Your task to perform on an android device: turn vacation reply on in the gmail app Image 0: 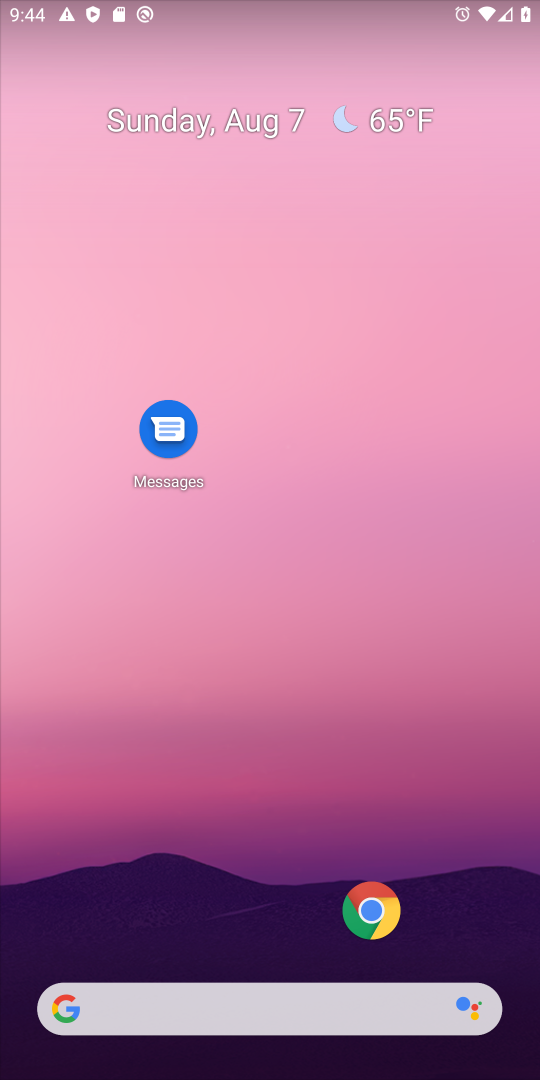
Step 0: drag from (270, 694) to (279, 540)
Your task to perform on an android device: turn vacation reply on in the gmail app Image 1: 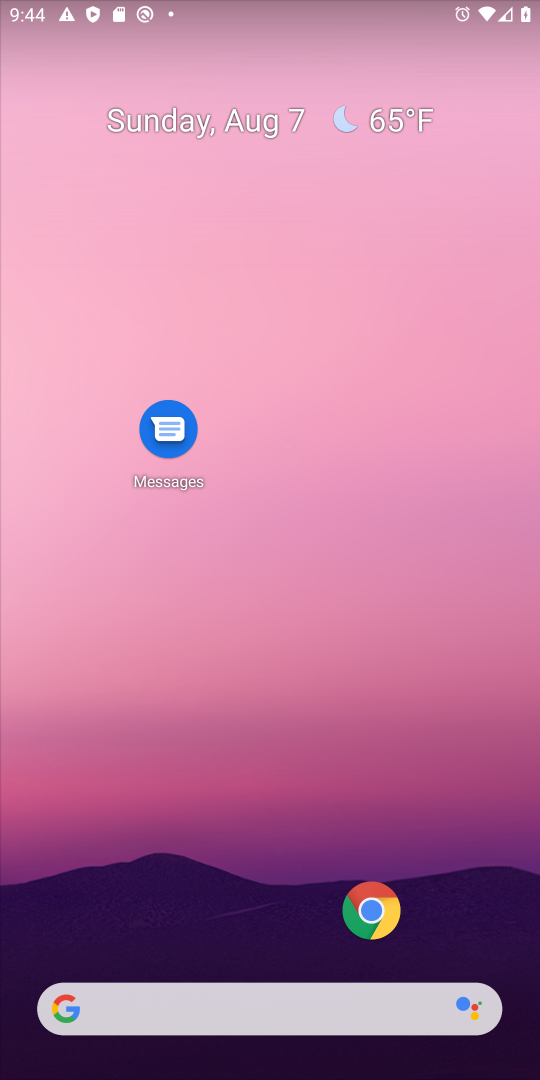
Step 1: drag from (256, 836) to (256, 428)
Your task to perform on an android device: turn vacation reply on in the gmail app Image 2: 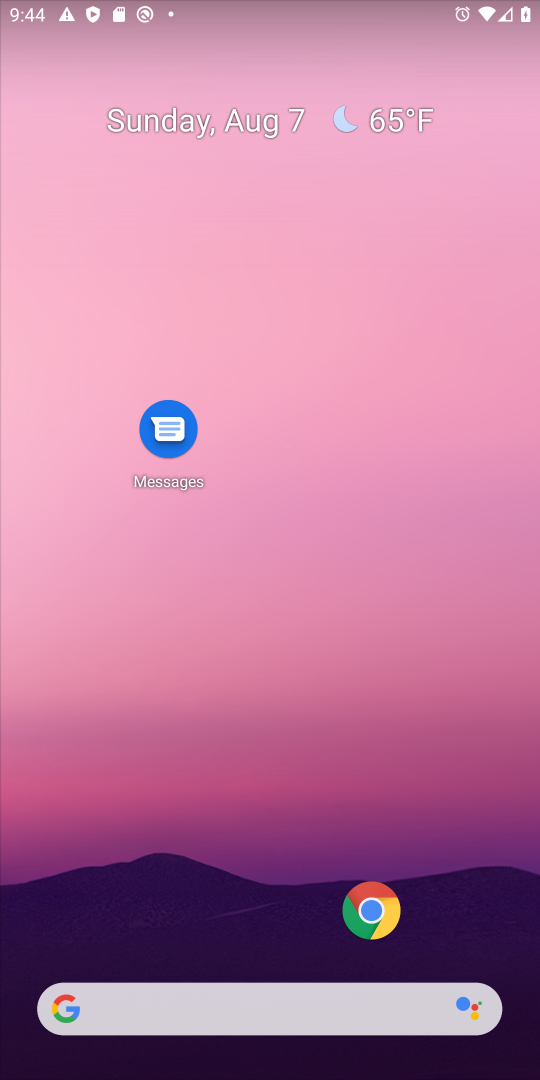
Step 2: drag from (218, 937) to (218, 433)
Your task to perform on an android device: turn vacation reply on in the gmail app Image 3: 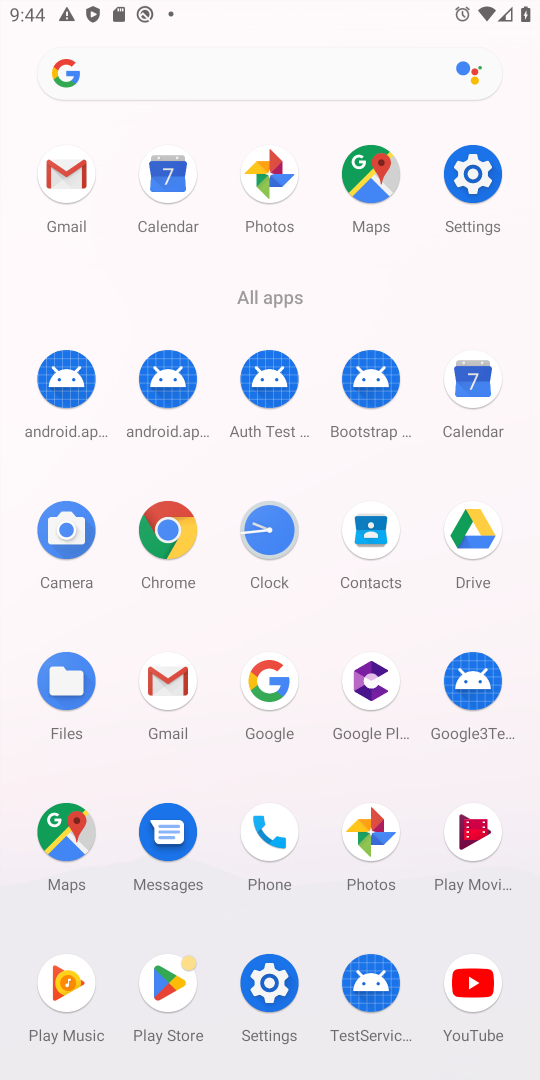
Step 3: click (163, 677)
Your task to perform on an android device: turn vacation reply on in the gmail app Image 4: 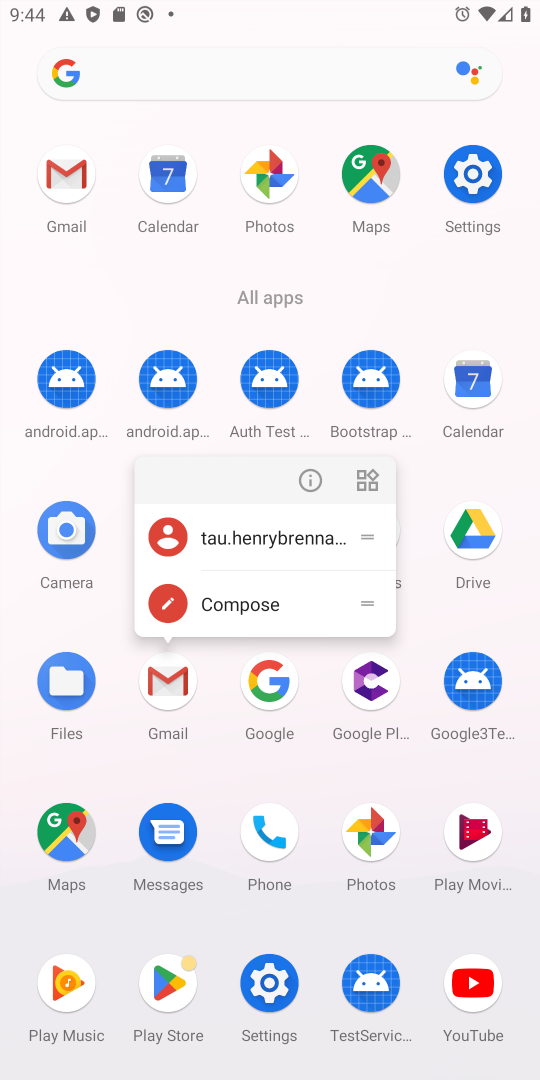
Step 4: click (163, 701)
Your task to perform on an android device: turn vacation reply on in the gmail app Image 5: 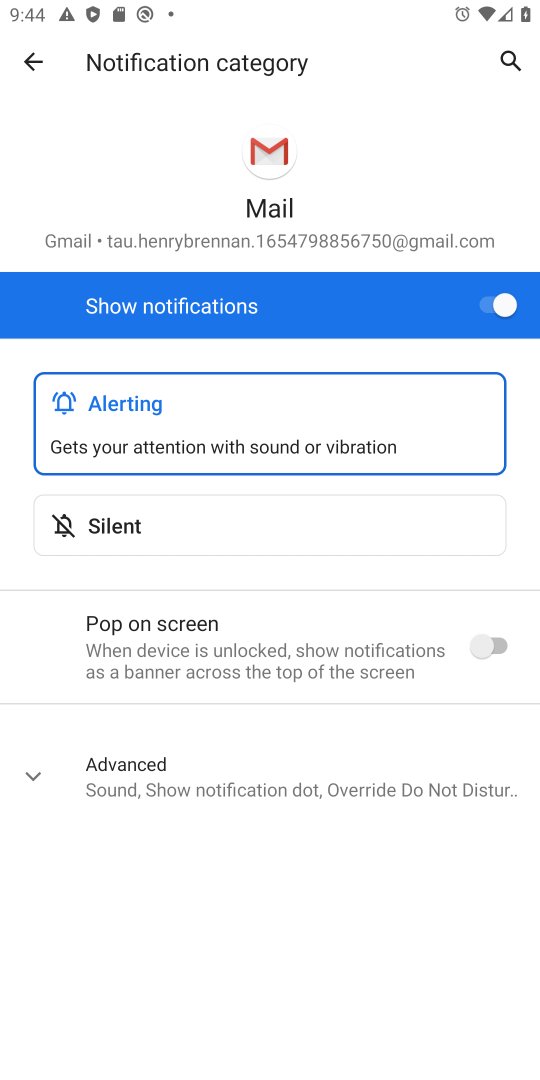
Step 5: drag from (14, 55) to (77, 55)
Your task to perform on an android device: turn vacation reply on in the gmail app Image 6: 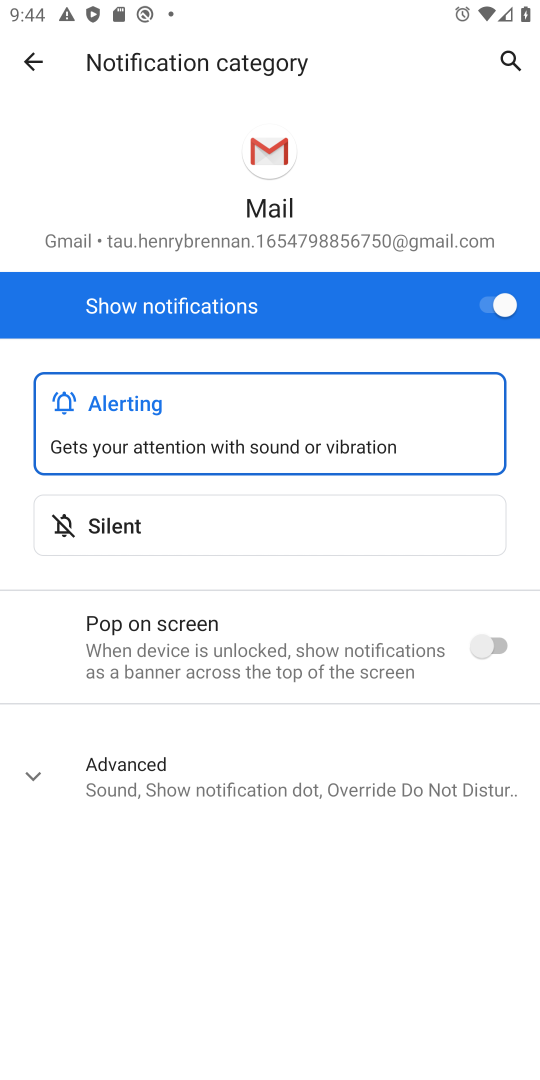
Step 6: click (38, 61)
Your task to perform on an android device: turn vacation reply on in the gmail app Image 7: 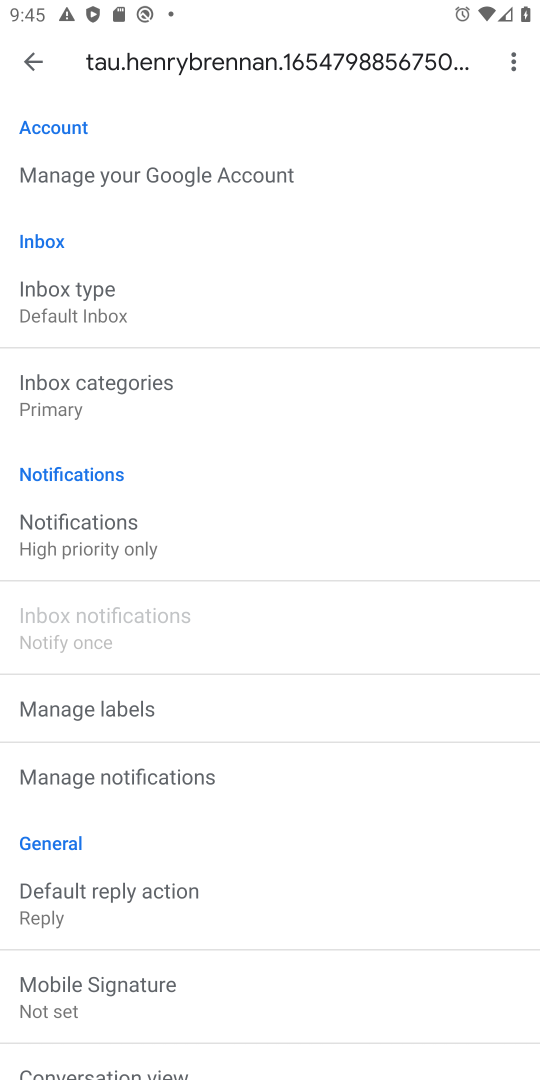
Step 7: drag from (75, 991) to (142, 541)
Your task to perform on an android device: turn vacation reply on in the gmail app Image 8: 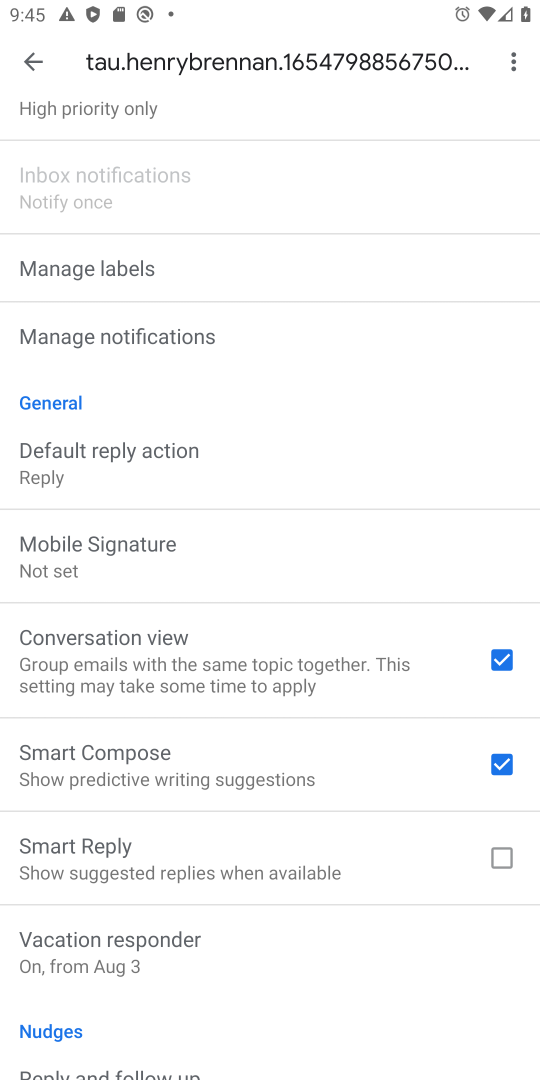
Step 8: click (98, 952)
Your task to perform on an android device: turn vacation reply on in the gmail app Image 9: 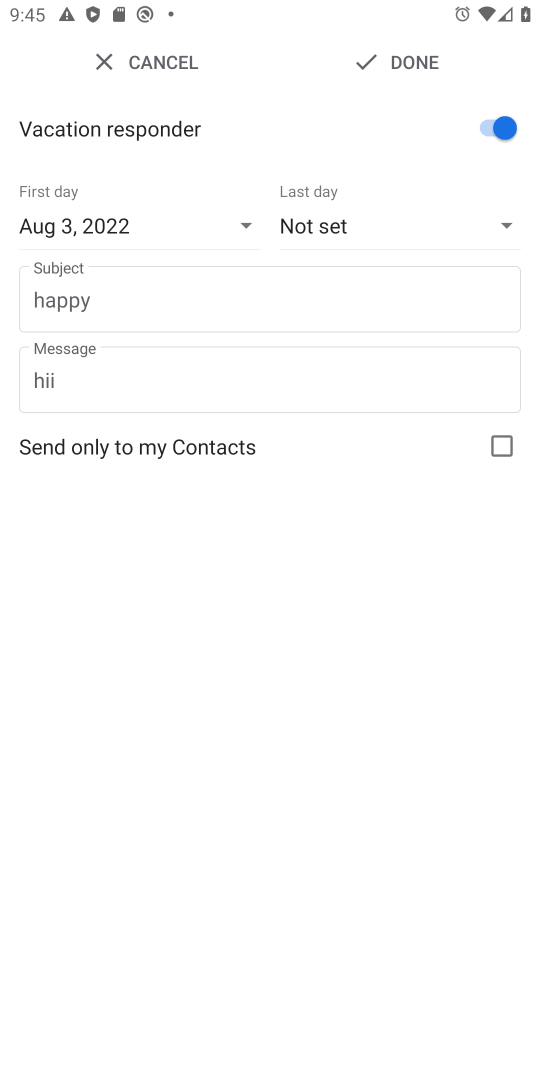
Step 9: click (377, 59)
Your task to perform on an android device: turn vacation reply on in the gmail app Image 10: 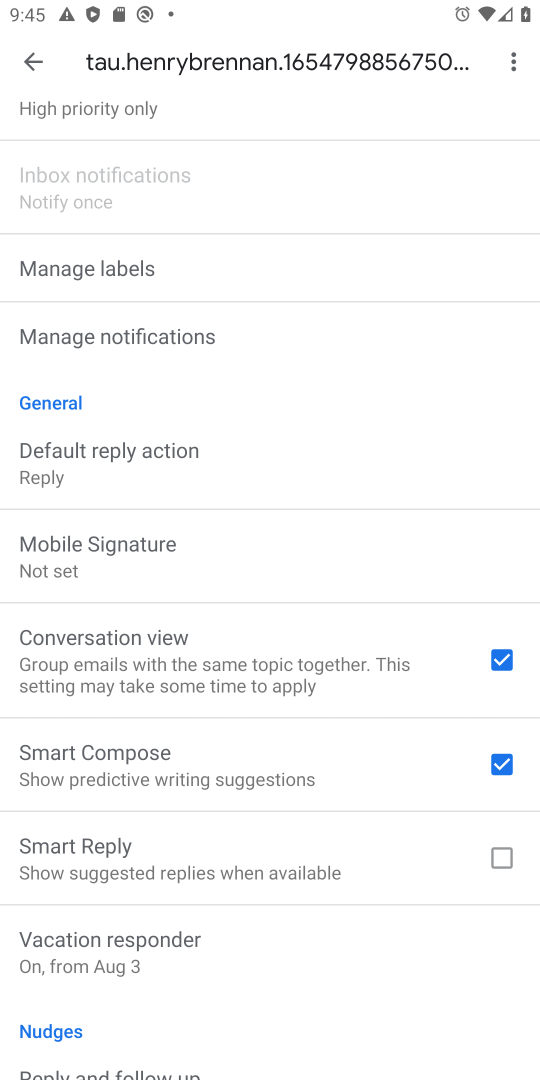
Step 10: task complete